Your task to perform on an android device: Open Yahoo.com Image 0: 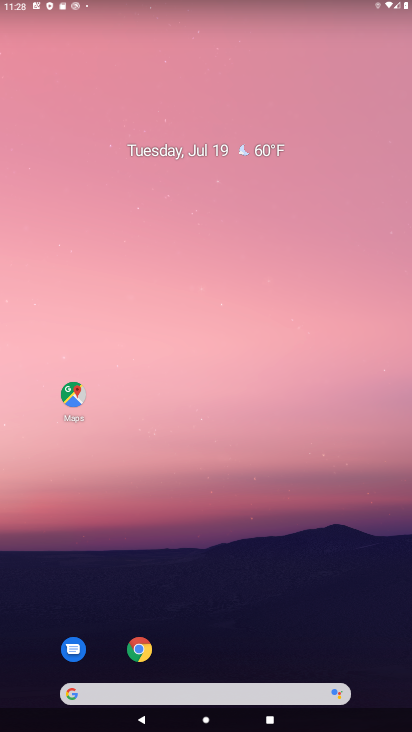
Step 0: click (155, 660)
Your task to perform on an android device: Open Yahoo.com Image 1: 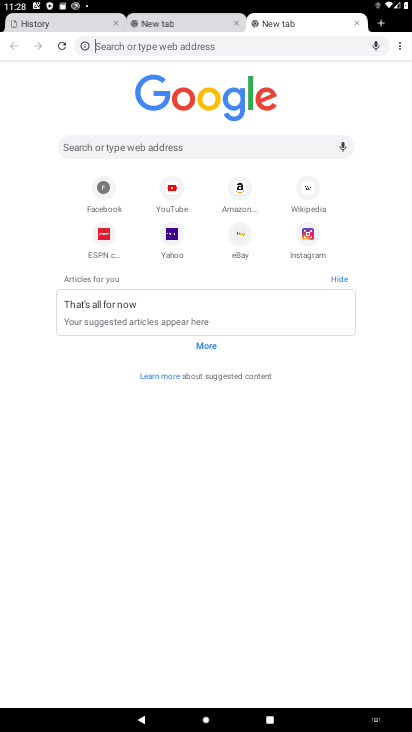
Step 1: click (168, 244)
Your task to perform on an android device: Open Yahoo.com Image 2: 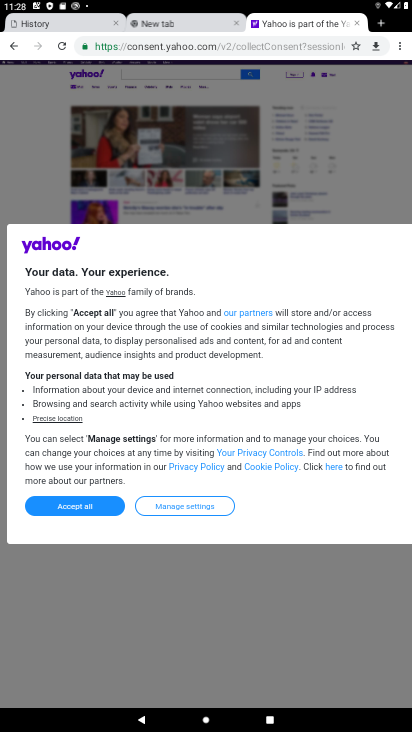
Step 2: task complete